Your task to perform on an android device: Open Youtube and go to "Your channel" Image 0: 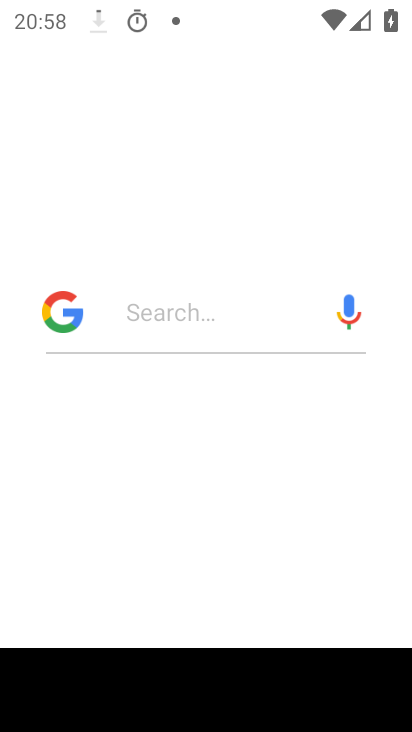
Step 0: press home button
Your task to perform on an android device: Open Youtube and go to "Your channel" Image 1: 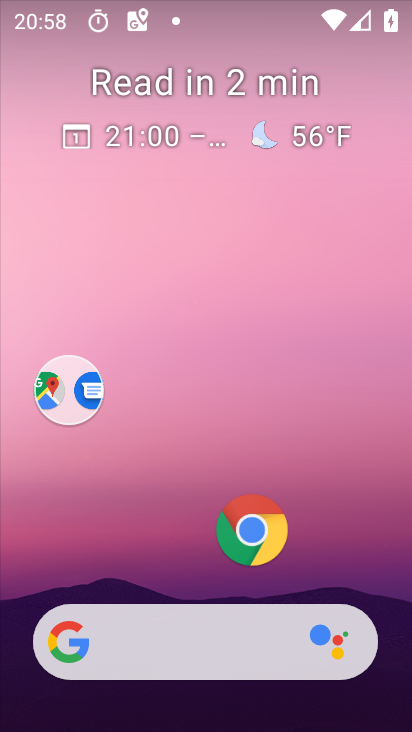
Step 1: drag from (170, 553) to (194, 82)
Your task to perform on an android device: Open Youtube and go to "Your channel" Image 2: 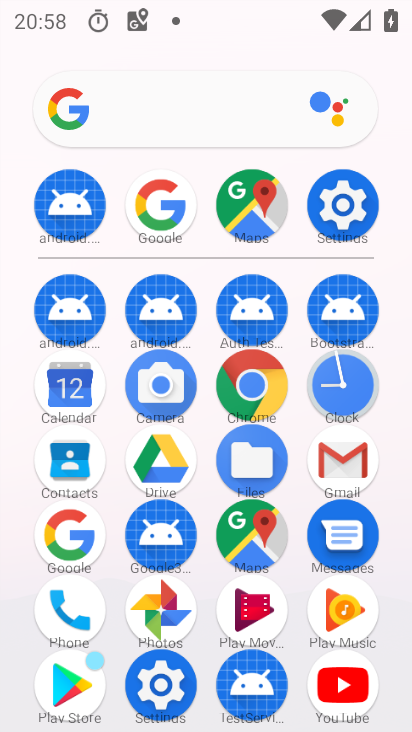
Step 2: drag from (203, 622) to (218, 351)
Your task to perform on an android device: Open Youtube and go to "Your channel" Image 3: 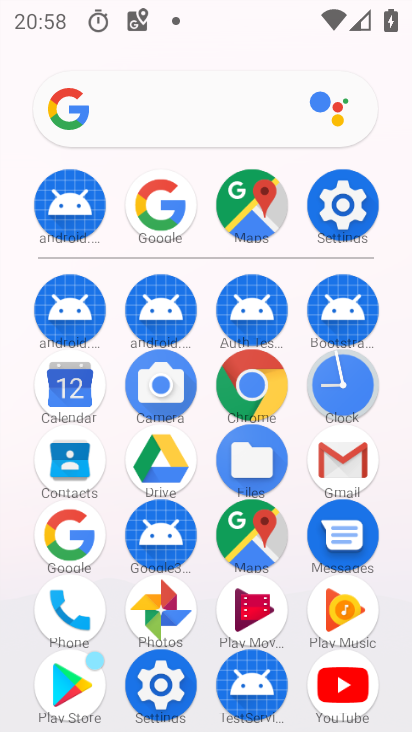
Step 3: click (347, 663)
Your task to perform on an android device: Open Youtube and go to "Your channel" Image 4: 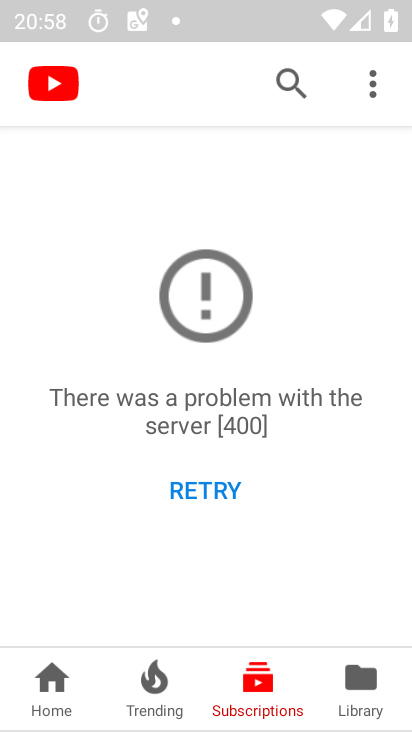
Step 4: click (219, 488)
Your task to perform on an android device: Open Youtube and go to "Your channel" Image 5: 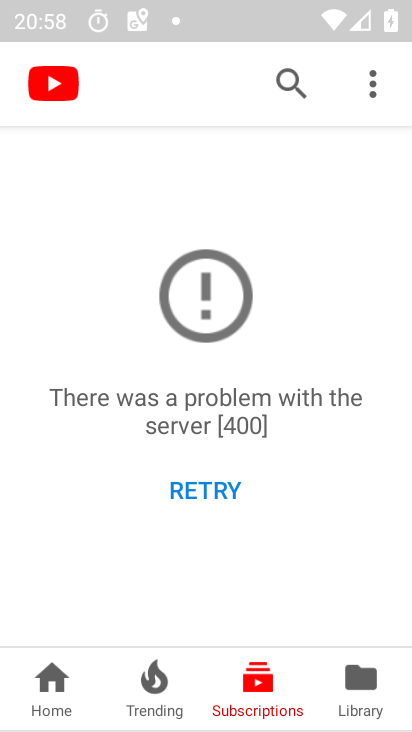
Step 5: task complete